Your task to perform on an android device: change the clock style Image 0: 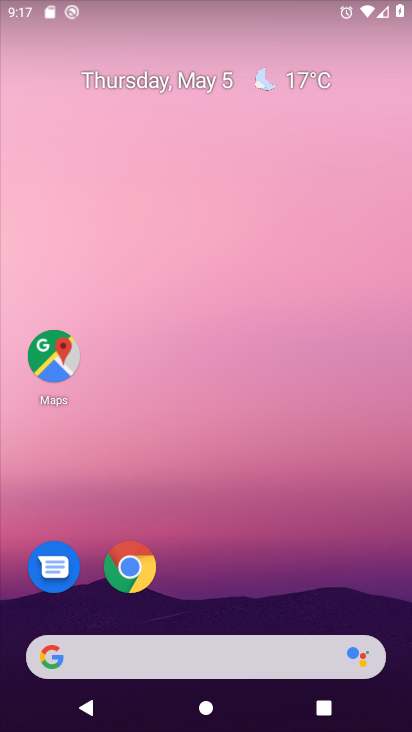
Step 0: drag from (276, 569) to (293, 35)
Your task to perform on an android device: change the clock style Image 1: 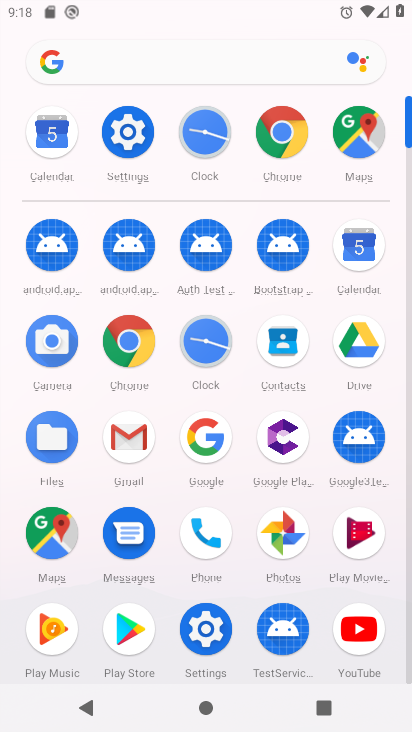
Step 1: click (204, 348)
Your task to perform on an android device: change the clock style Image 2: 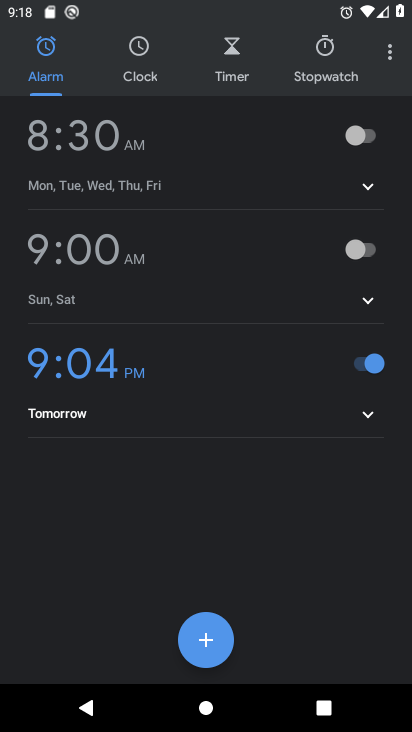
Step 2: click (393, 53)
Your task to perform on an android device: change the clock style Image 3: 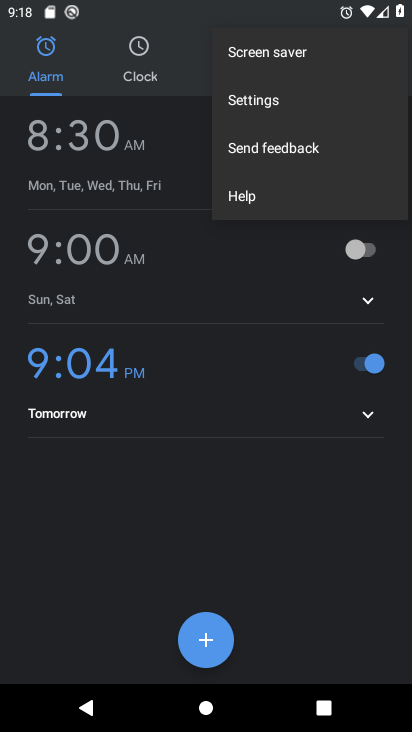
Step 3: click (327, 102)
Your task to perform on an android device: change the clock style Image 4: 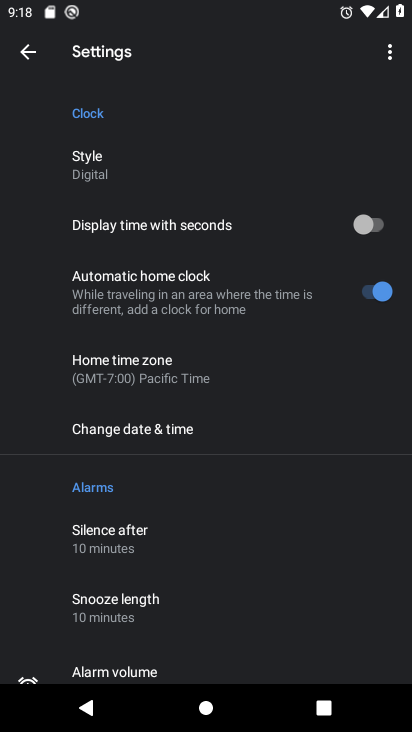
Step 4: click (127, 171)
Your task to perform on an android device: change the clock style Image 5: 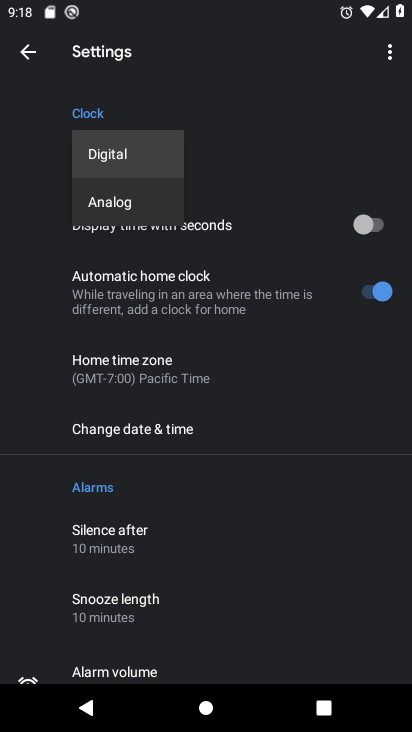
Step 5: click (135, 201)
Your task to perform on an android device: change the clock style Image 6: 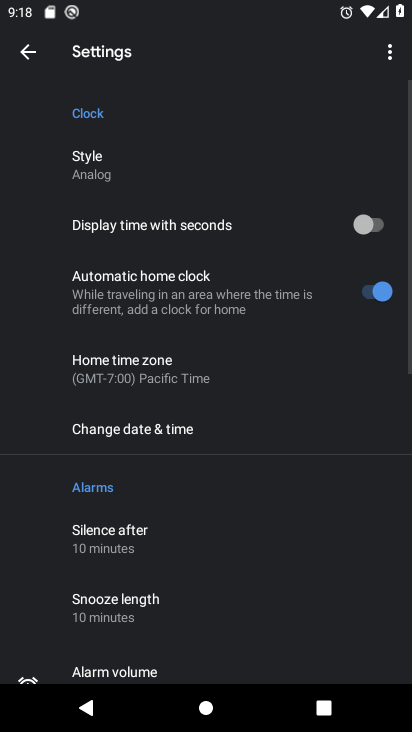
Step 6: click (29, 51)
Your task to perform on an android device: change the clock style Image 7: 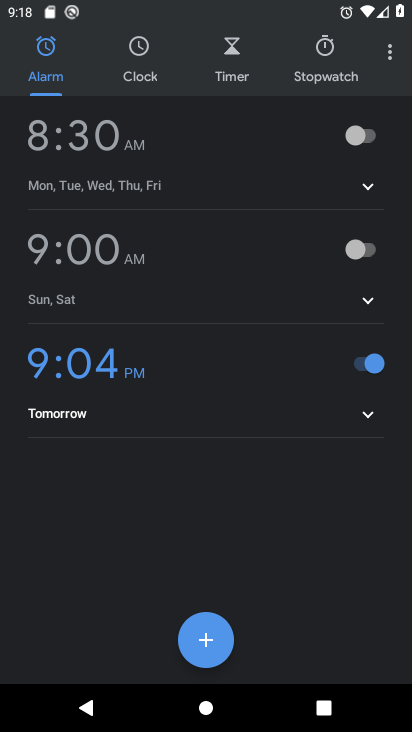
Step 7: click (143, 49)
Your task to perform on an android device: change the clock style Image 8: 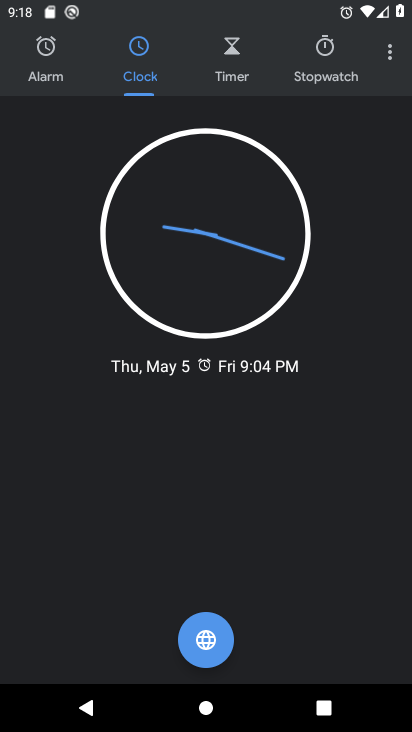
Step 8: task complete